Your task to perform on an android device: What's the weather? Image 0: 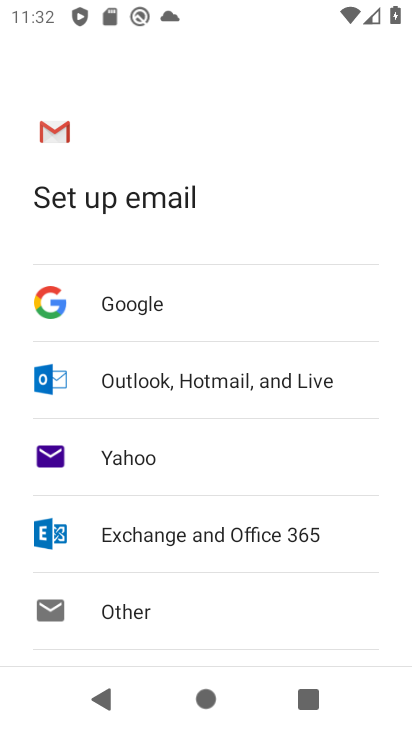
Step 0: press home button
Your task to perform on an android device: What's the weather? Image 1: 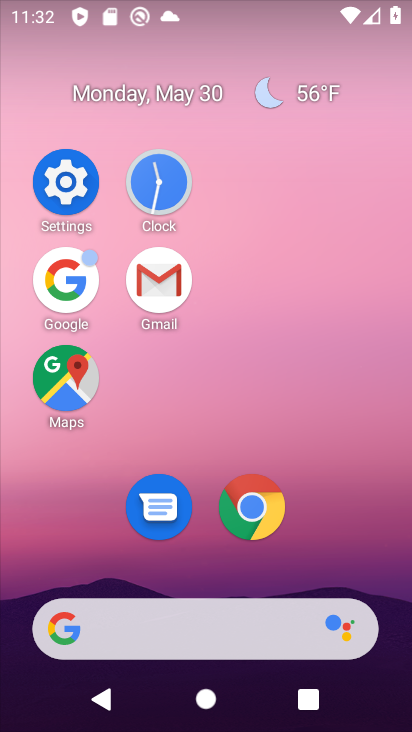
Step 1: click (81, 274)
Your task to perform on an android device: What's the weather? Image 2: 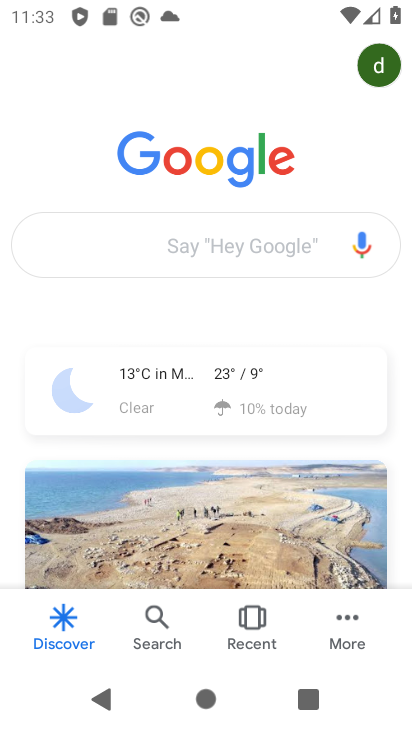
Step 2: click (154, 251)
Your task to perform on an android device: What's the weather? Image 3: 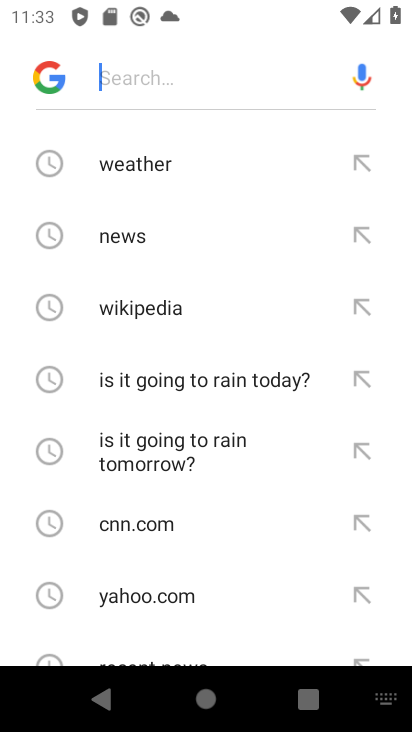
Step 3: click (92, 154)
Your task to perform on an android device: What's the weather? Image 4: 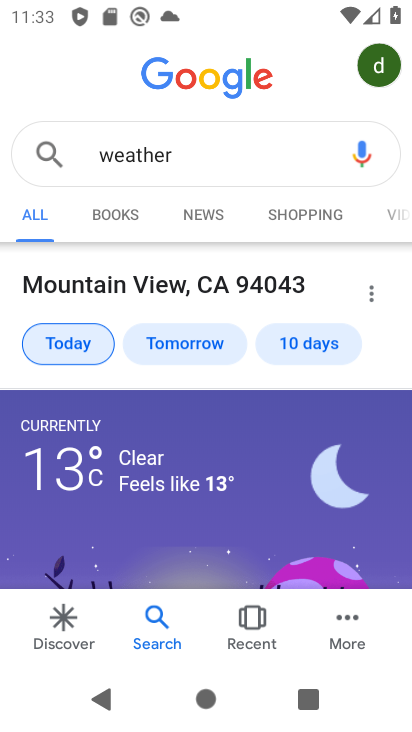
Step 4: task complete